Your task to perform on an android device: toggle show notifications on the lock screen Image 0: 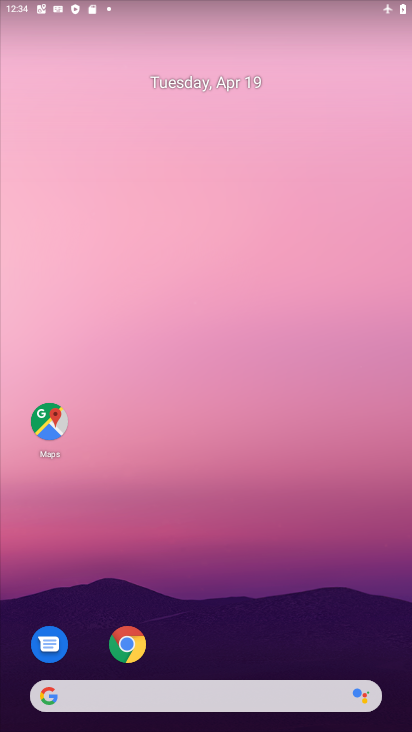
Step 0: drag from (264, 627) to (320, 153)
Your task to perform on an android device: toggle show notifications on the lock screen Image 1: 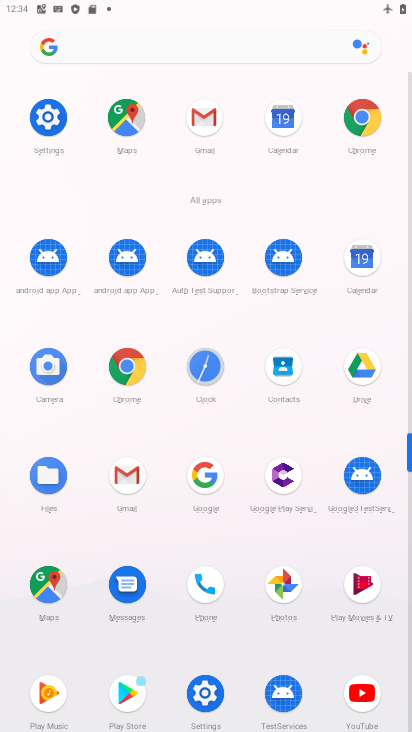
Step 1: click (65, 116)
Your task to perform on an android device: toggle show notifications on the lock screen Image 2: 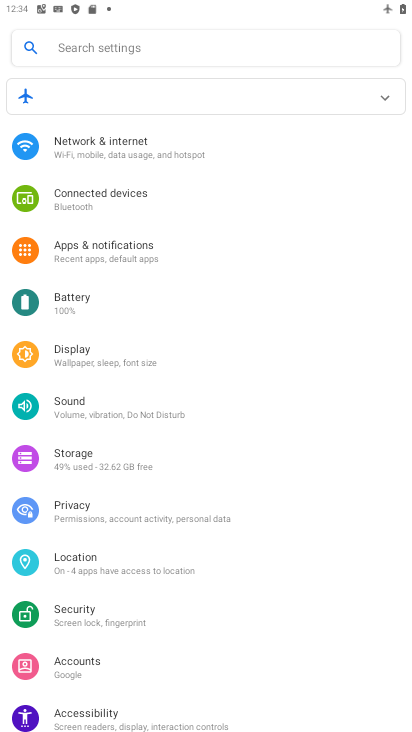
Step 2: click (246, 250)
Your task to perform on an android device: toggle show notifications on the lock screen Image 3: 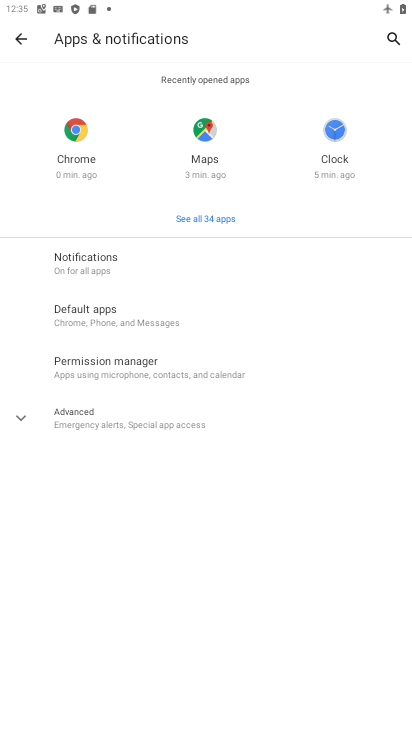
Step 3: click (32, 422)
Your task to perform on an android device: toggle show notifications on the lock screen Image 4: 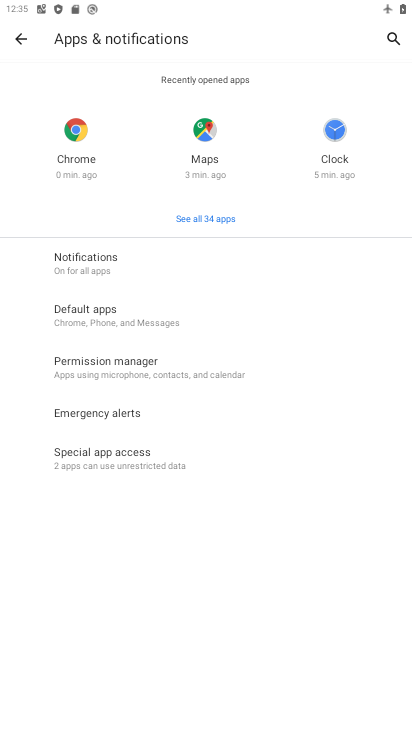
Step 4: click (130, 277)
Your task to perform on an android device: toggle show notifications on the lock screen Image 5: 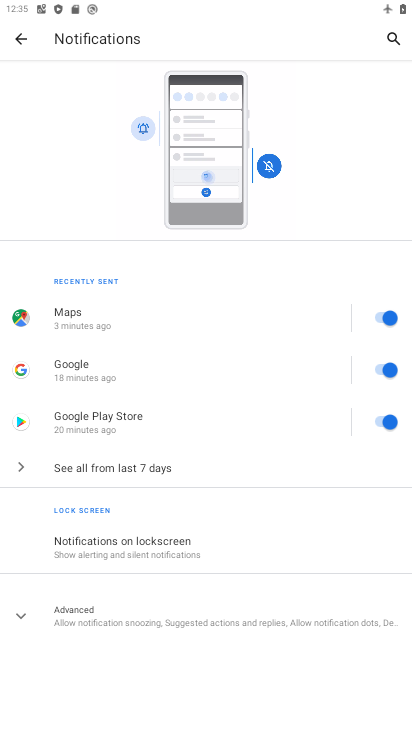
Step 5: click (228, 556)
Your task to perform on an android device: toggle show notifications on the lock screen Image 6: 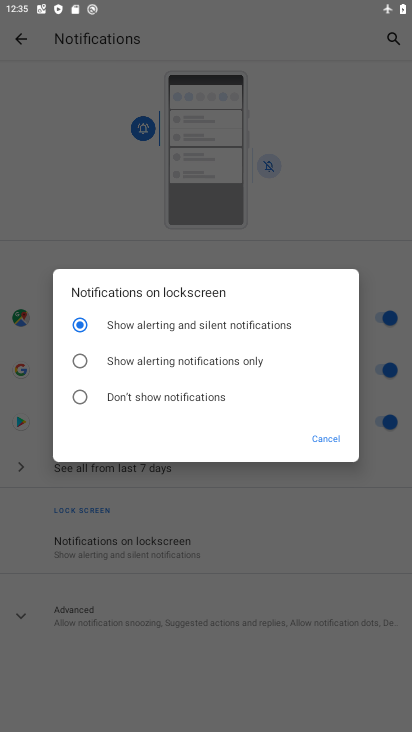
Step 6: click (228, 364)
Your task to perform on an android device: toggle show notifications on the lock screen Image 7: 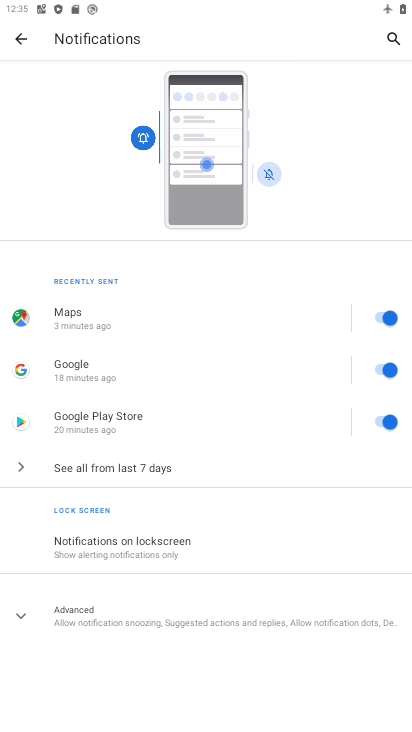
Step 7: task complete